Your task to perform on an android device: Open Amazon Image 0: 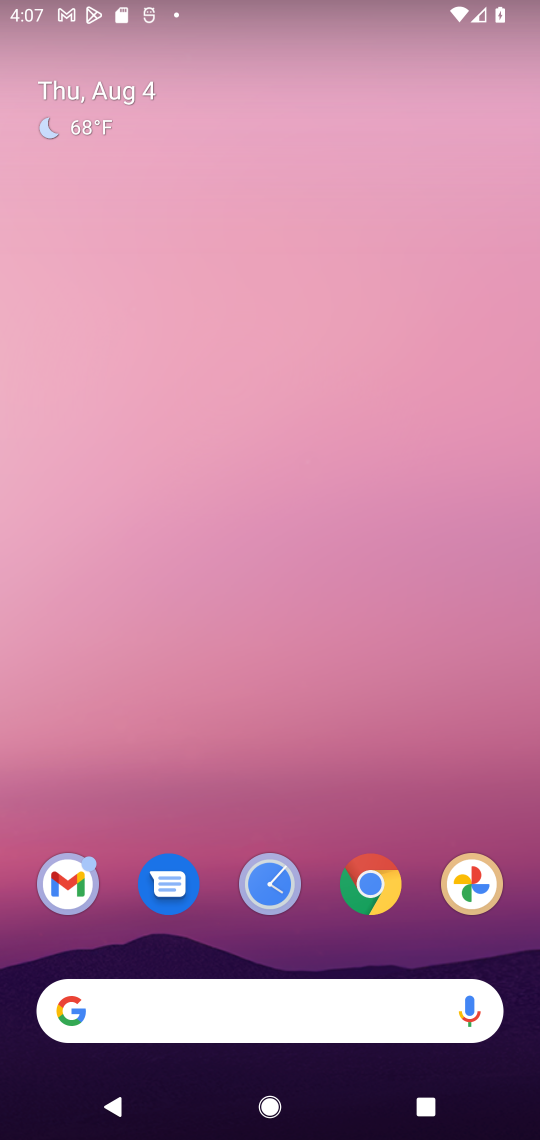
Step 0: click (374, 905)
Your task to perform on an android device: Open Amazon Image 1: 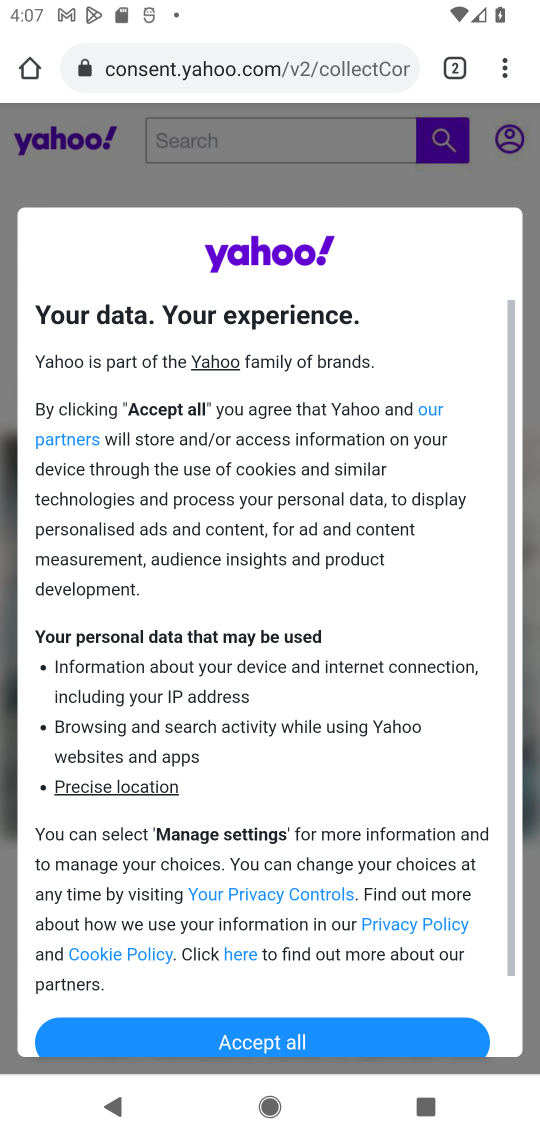
Step 1: click (312, 57)
Your task to perform on an android device: Open Amazon Image 2: 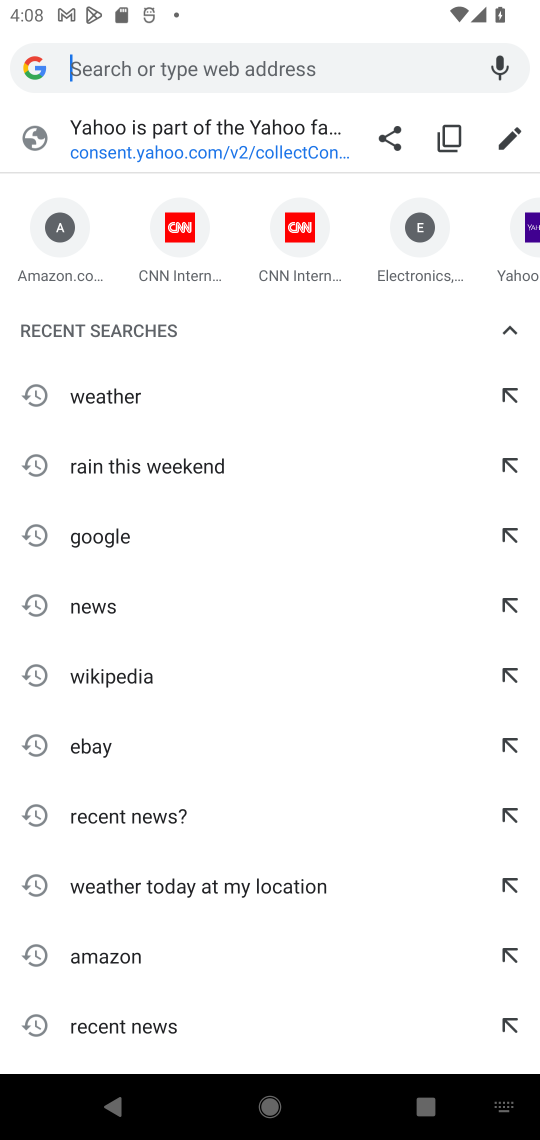
Step 2: click (31, 262)
Your task to perform on an android device: Open Amazon Image 3: 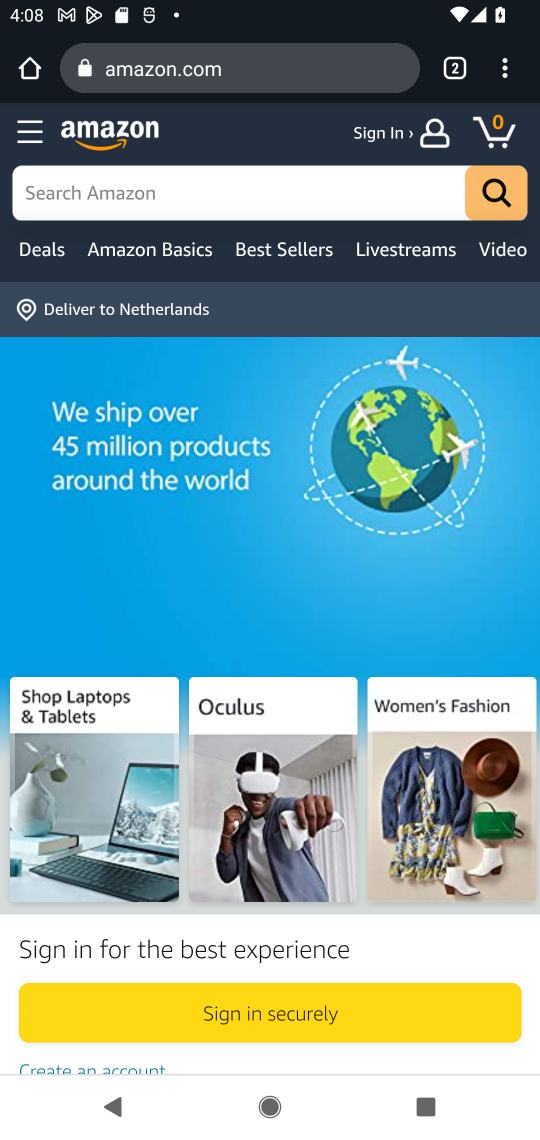
Step 3: task complete